Your task to perform on an android device: Go to location settings Image 0: 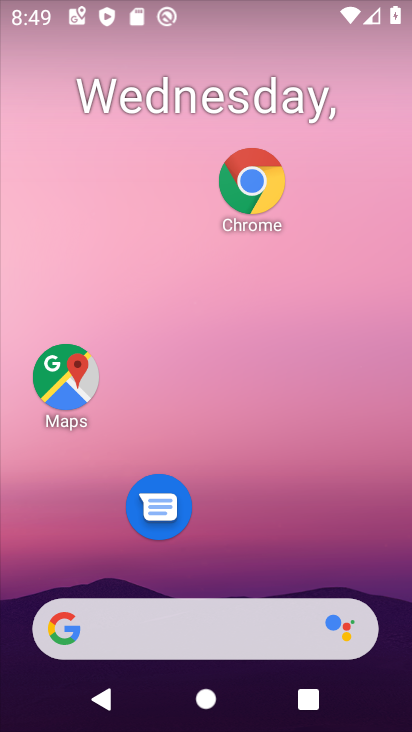
Step 0: drag from (286, 524) to (410, 232)
Your task to perform on an android device: Go to location settings Image 1: 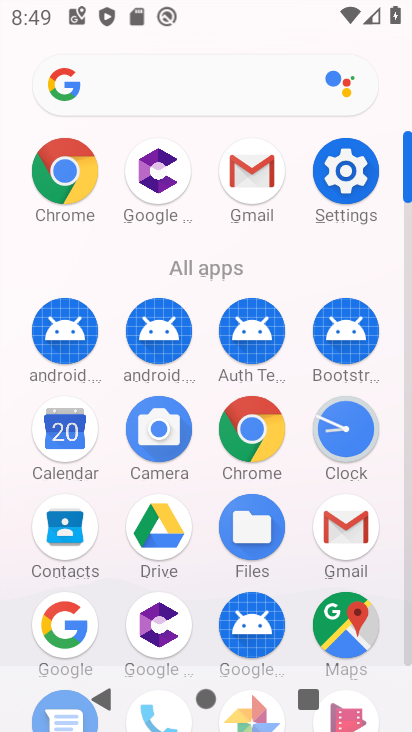
Step 1: click (347, 192)
Your task to perform on an android device: Go to location settings Image 2: 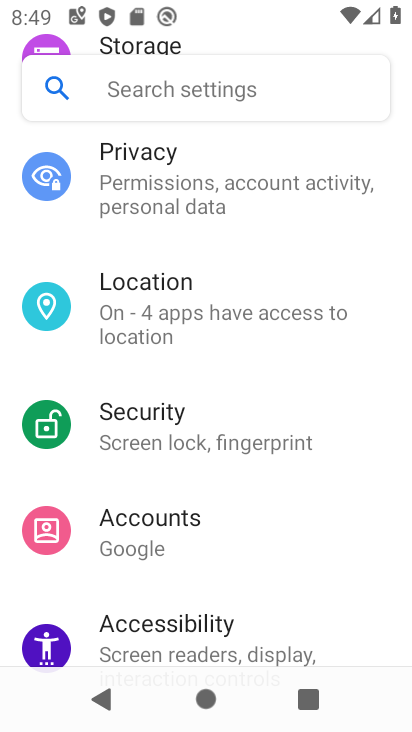
Step 2: click (189, 312)
Your task to perform on an android device: Go to location settings Image 3: 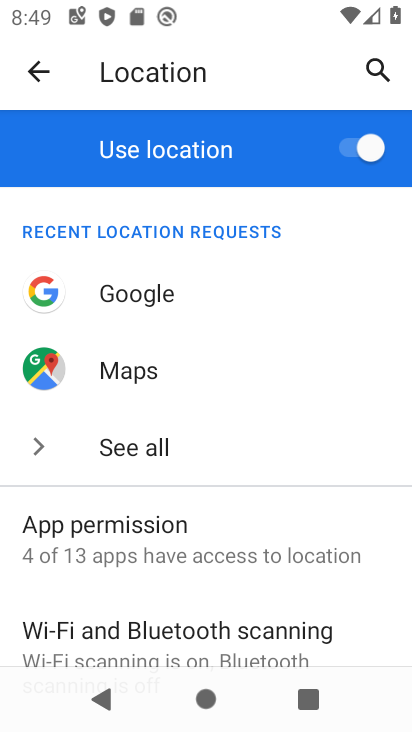
Step 3: task complete